Your task to perform on an android device: toggle notifications settings in the gmail app Image 0: 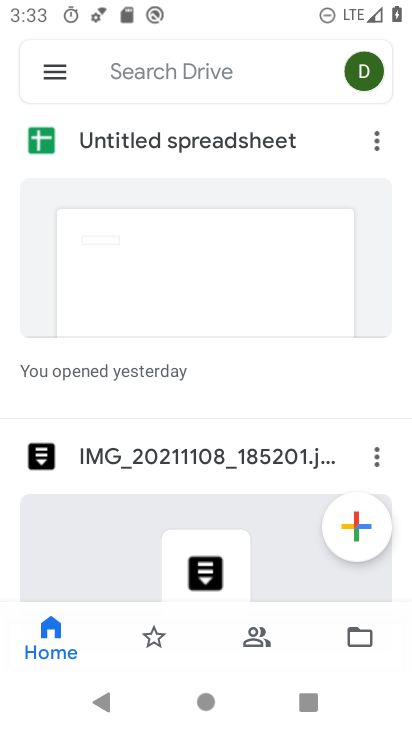
Step 0: click (61, 75)
Your task to perform on an android device: toggle notifications settings in the gmail app Image 1: 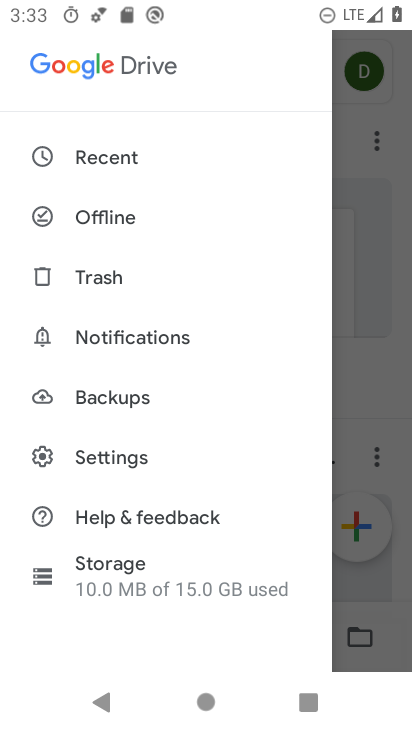
Step 1: press home button
Your task to perform on an android device: toggle notifications settings in the gmail app Image 2: 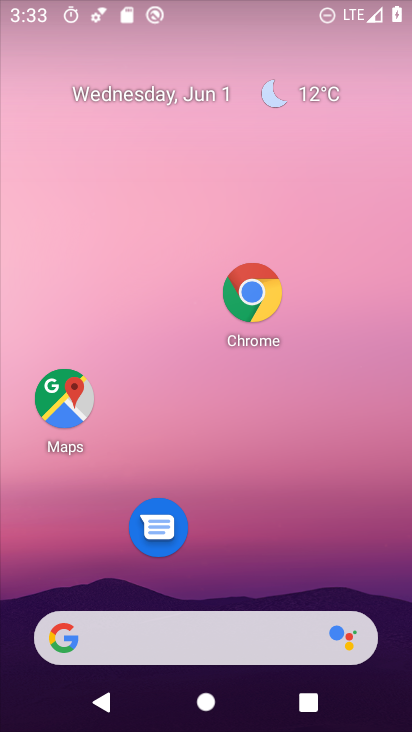
Step 2: drag from (250, 570) to (251, 176)
Your task to perform on an android device: toggle notifications settings in the gmail app Image 3: 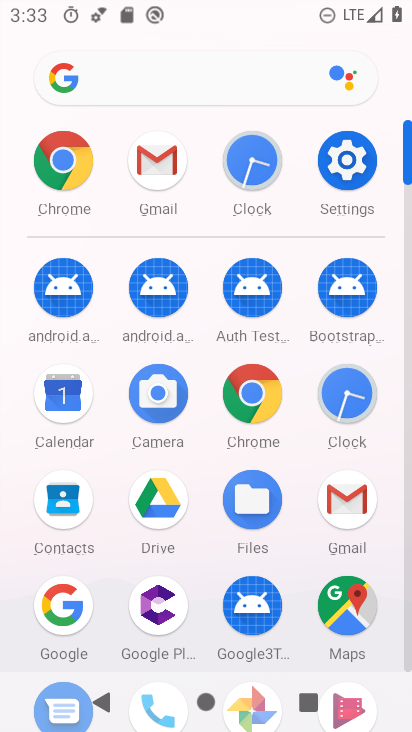
Step 3: click (361, 506)
Your task to perform on an android device: toggle notifications settings in the gmail app Image 4: 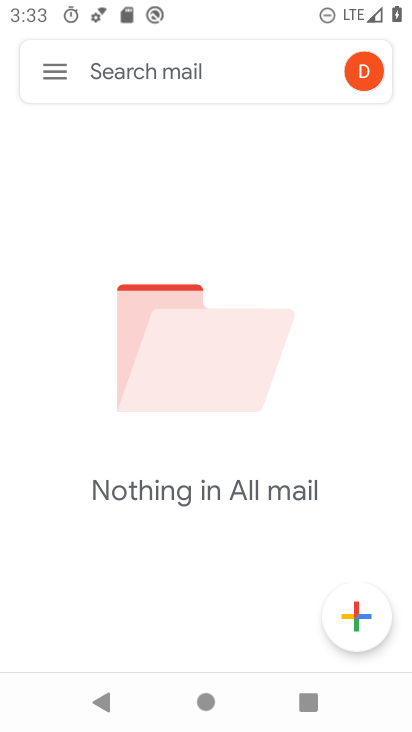
Step 4: click (53, 79)
Your task to perform on an android device: toggle notifications settings in the gmail app Image 5: 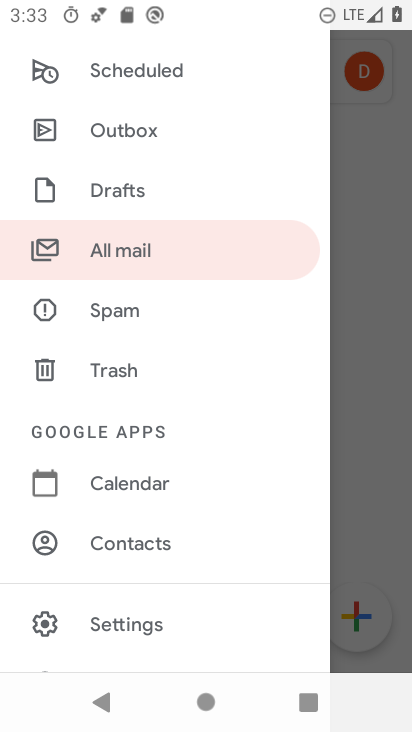
Step 5: click (141, 623)
Your task to perform on an android device: toggle notifications settings in the gmail app Image 6: 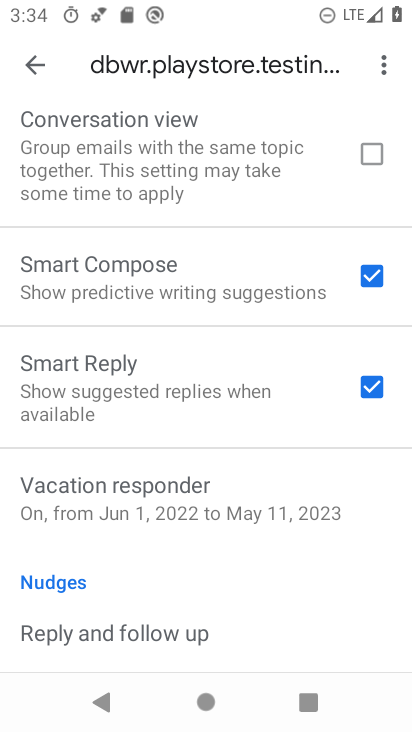
Step 6: click (28, 85)
Your task to perform on an android device: toggle notifications settings in the gmail app Image 7: 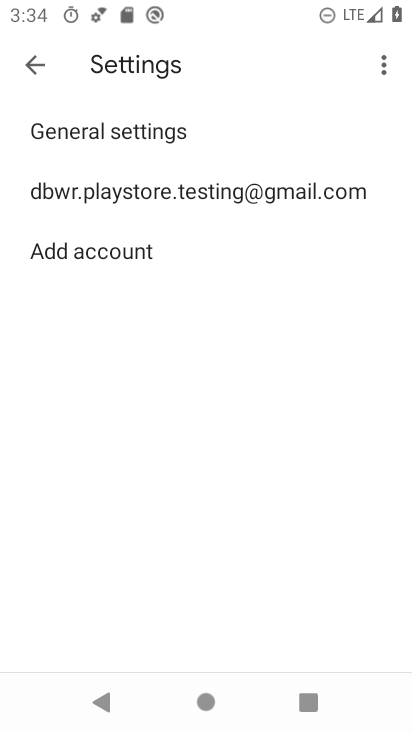
Step 7: click (158, 109)
Your task to perform on an android device: toggle notifications settings in the gmail app Image 8: 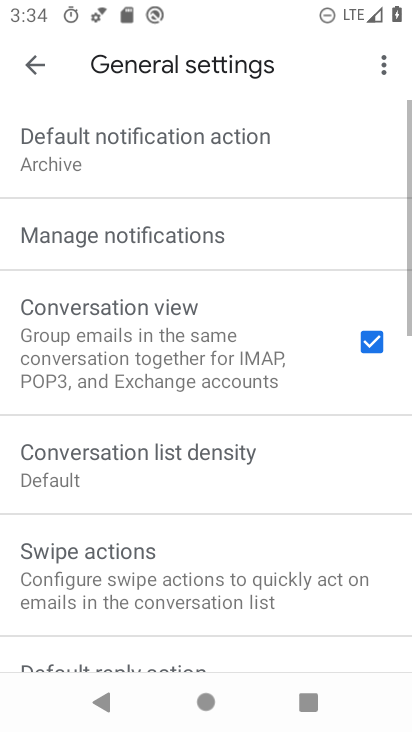
Step 8: click (184, 241)
Your task to perform on an android device: toggle notifications settings in the gmail app Image 9: 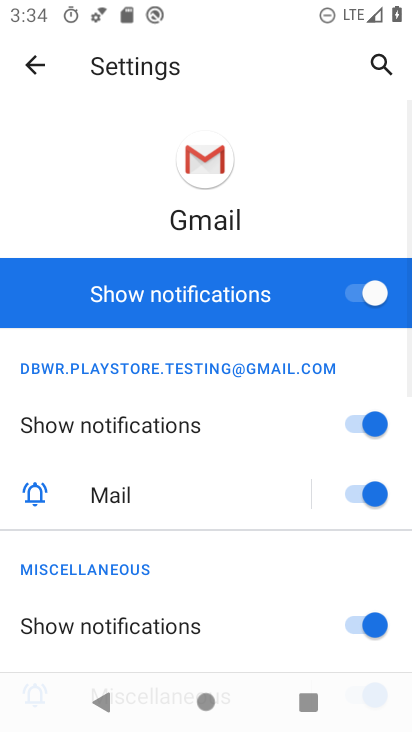
Step 9: click (351, 293)
Your task to perform on an android device: toggle notifications settings in the gmail app Image 10: 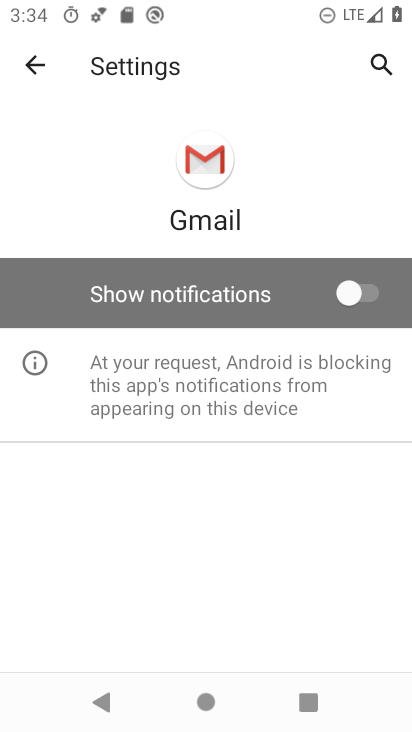
Step 10: task complete